Your task to perform on an android device: set default search engine in the chrome app Image 0: 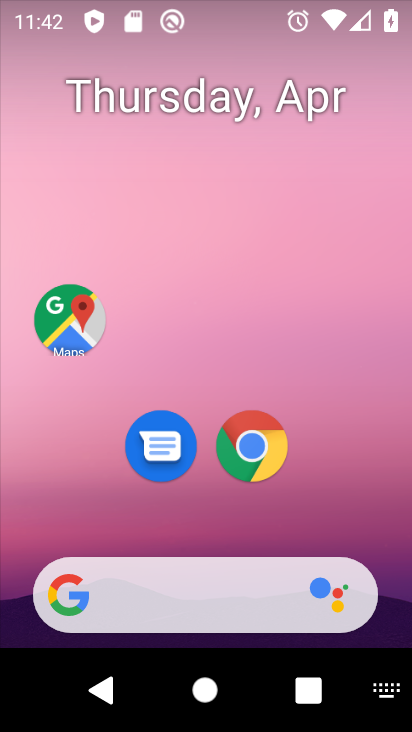
Step 0: click (260, 449)
Your task to perform on an android device: set default search engine in the chrome app Image 1: 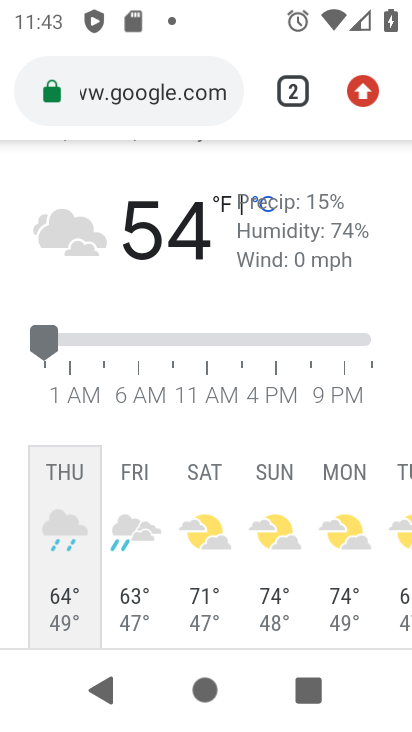
Step 1: drag from (365, 133) to (200, 467)
Your task to perform on an android device: set default search engine in the chrome app Image 2: 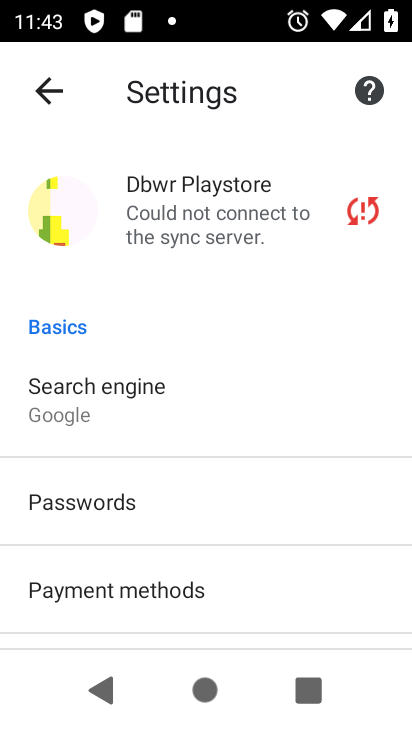
Step 2: click (189, 425)
Your task to perform on an android device: set default search engine in the chrome app Image 3: 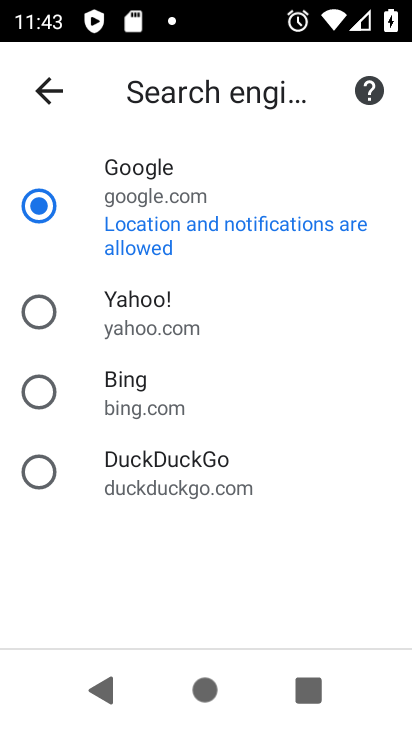
Step 3: click (188, 334)
Your task to perform on an android device: set default search engine in the chrome app Image 4: 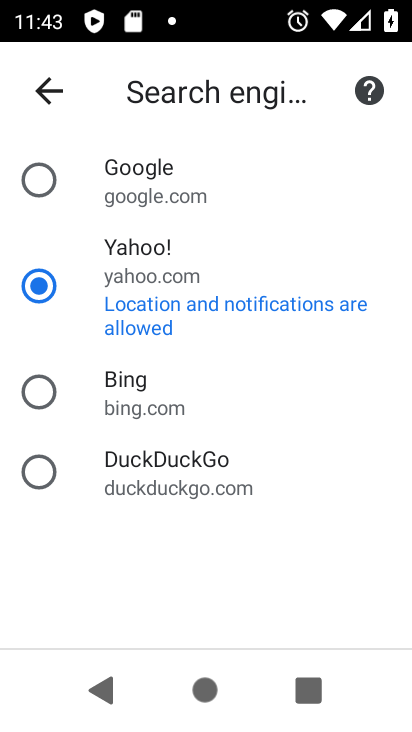
Step 4: task complete